Your task to perform on an android device: What's the news in Trinidad and Tobago? Image 0: 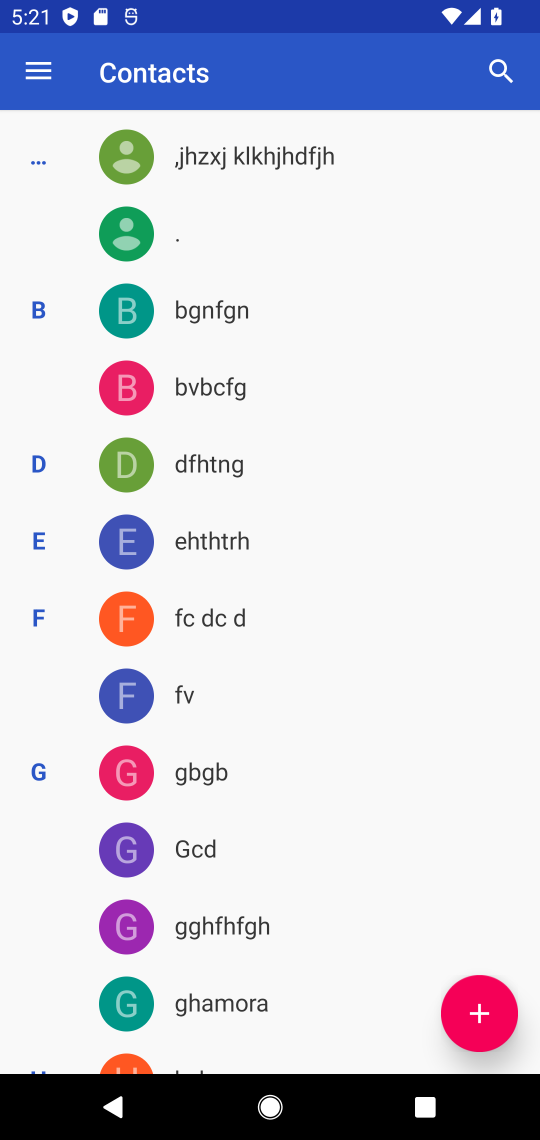
Step 0: press home button
Your task to perform on an android device: What's the news in Trinidad and Tobago? Image 1: 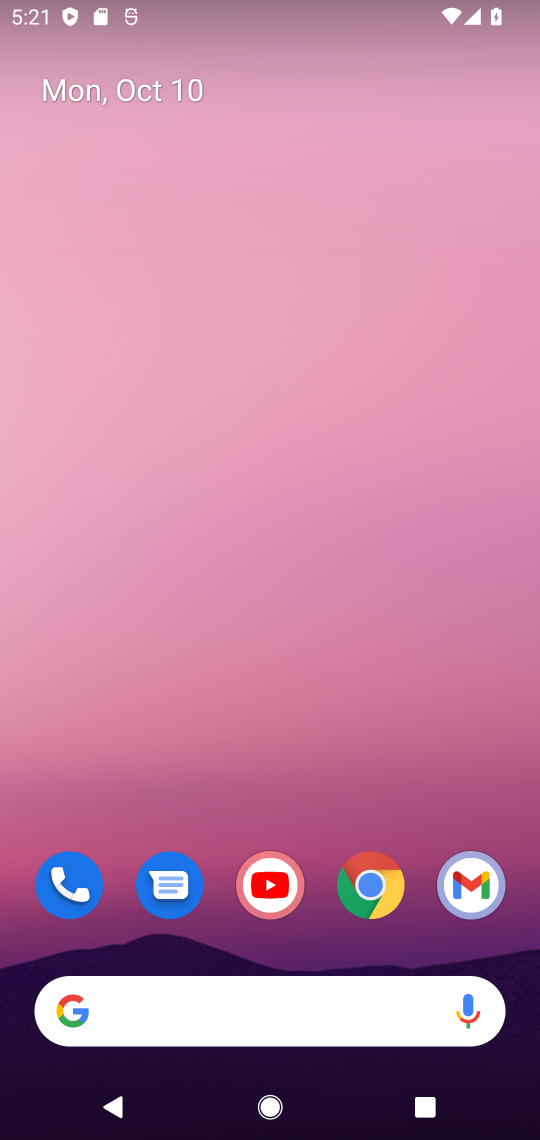
Step 1: click (353, 895)
Your task to perform on an android device: What's the news in Trinidad and Tobago? Image 2: 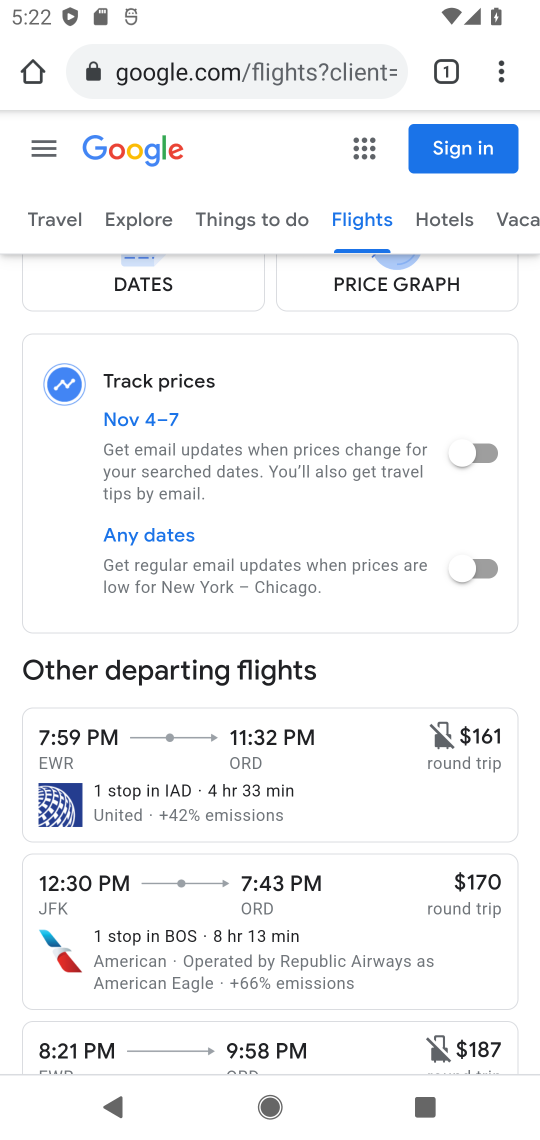
Step 2: click (307, 76)
Your task to perform on an android device: What's the news in Trinidad and Tobago? Image 3: 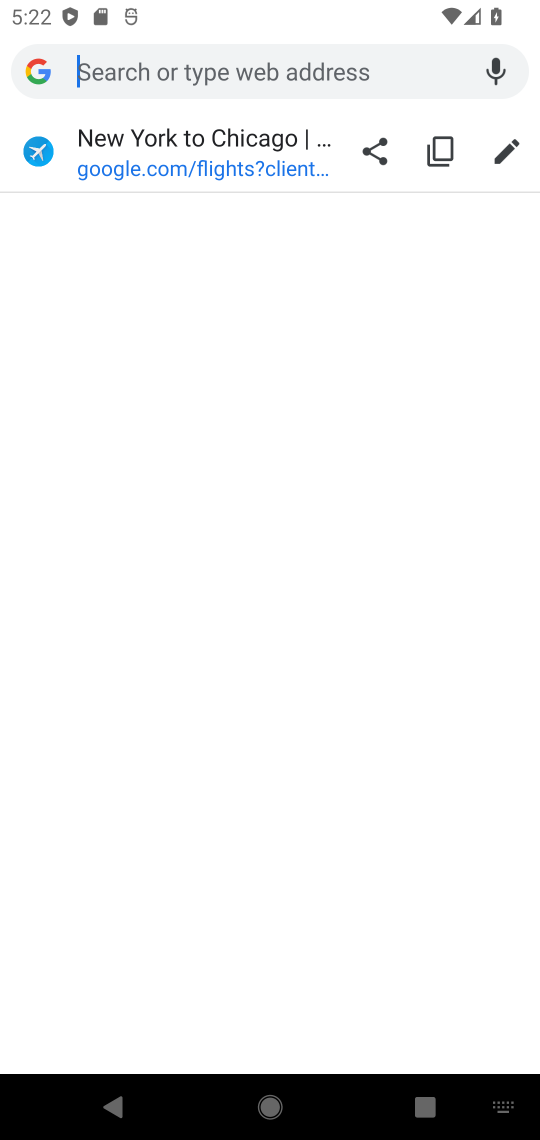
Step 3: type "Trinidad and Tobago"
Your task to perform on an android device: What's the news in Trinidad and Tobago? Image 4: 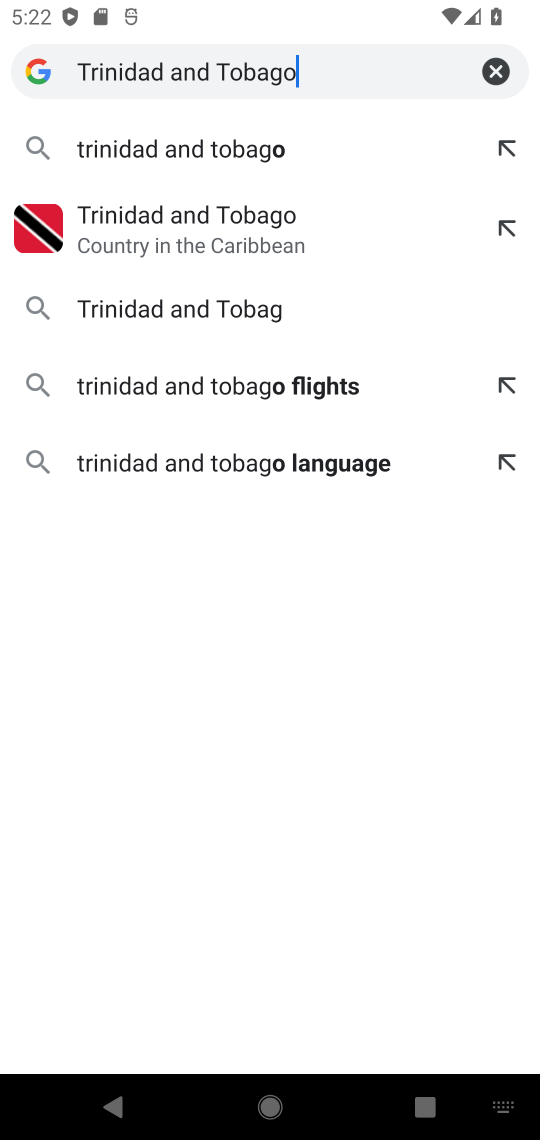
Step 4: type ""
Your task to perform on an android device: What's the news in Trinidad and Tobago? Image 5: 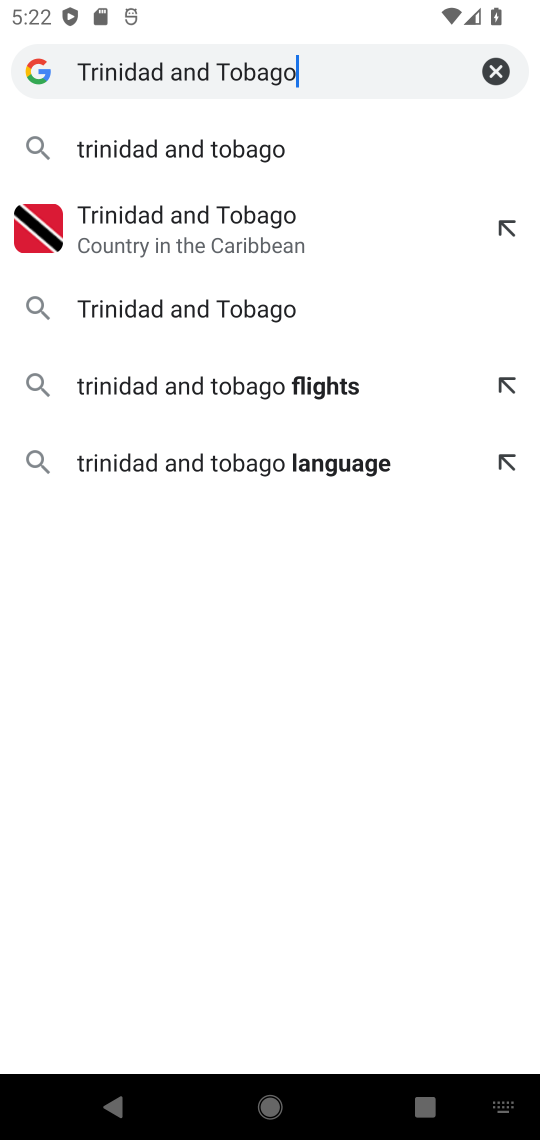
Step 5: click (141, 149)
Your task to perform on an android device: What's the news in Trinidad and Tobago? Image 6: 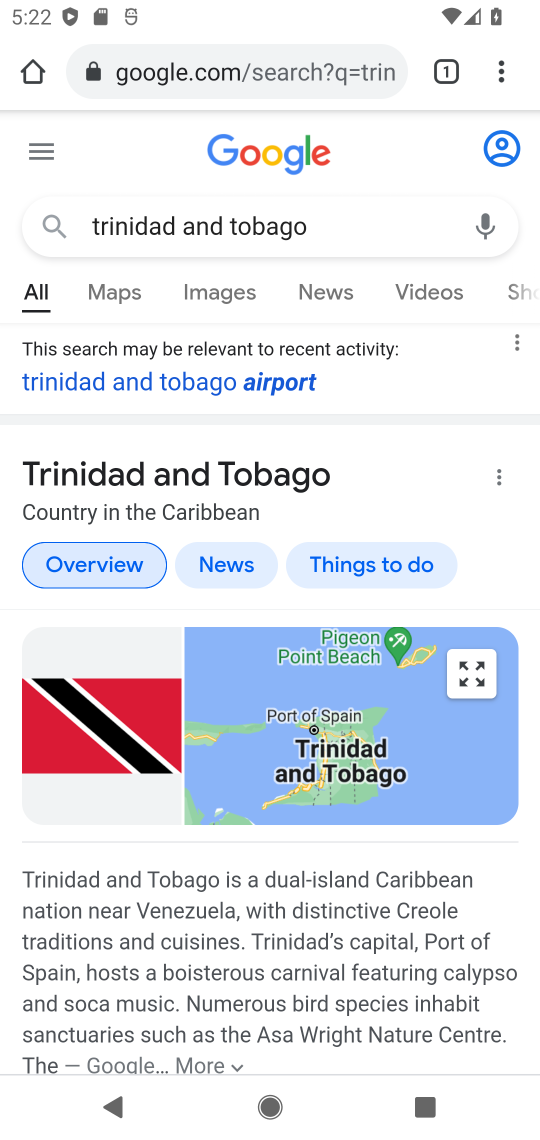
Step 6: drag from (369, 898) to (295, 200)
Your task to perform on an android device: What's the news in Trinidad and Tobago? Image 7: 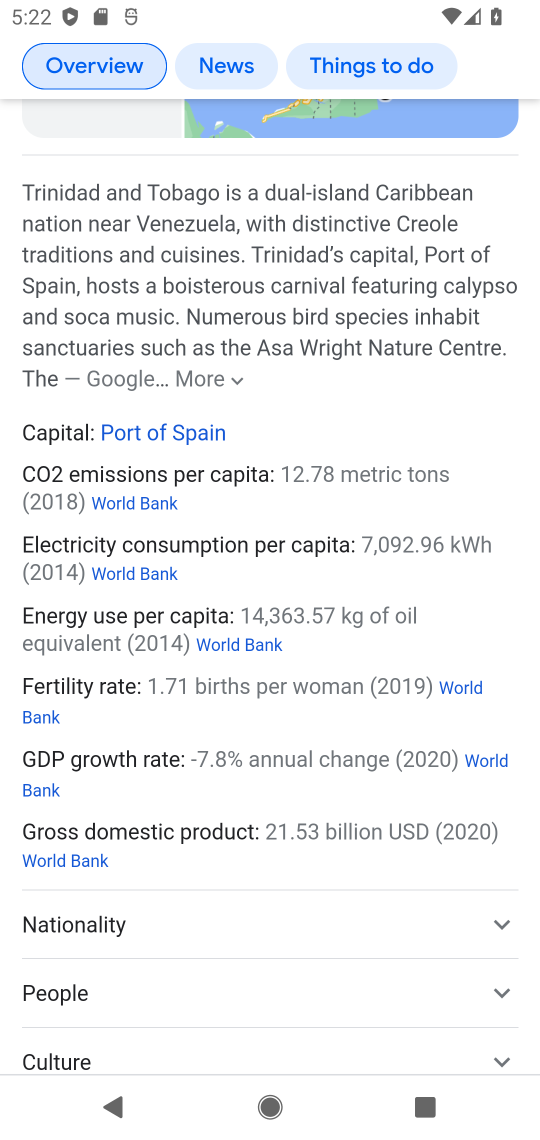
Step 7: drag from (382, 845) to (392, 288)
Your task to perform on an android device: What's the news in Trinidad and Tobago? Image 8: 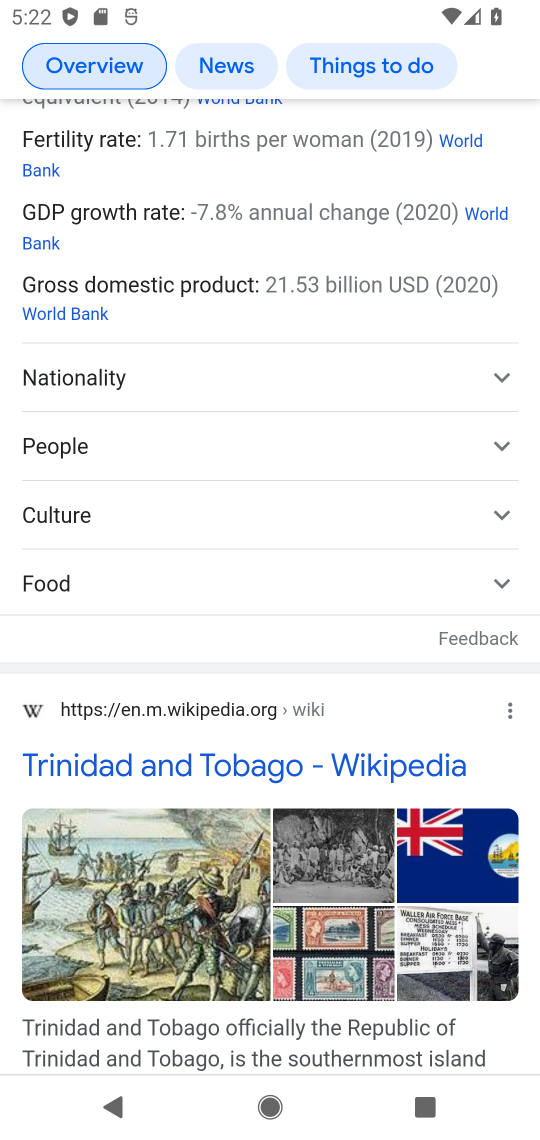
Step 8: drag from (278, 477) to (267, 551)
Your task to perform on an android device: What's the news in Trinidad and Tobago? Image 9: 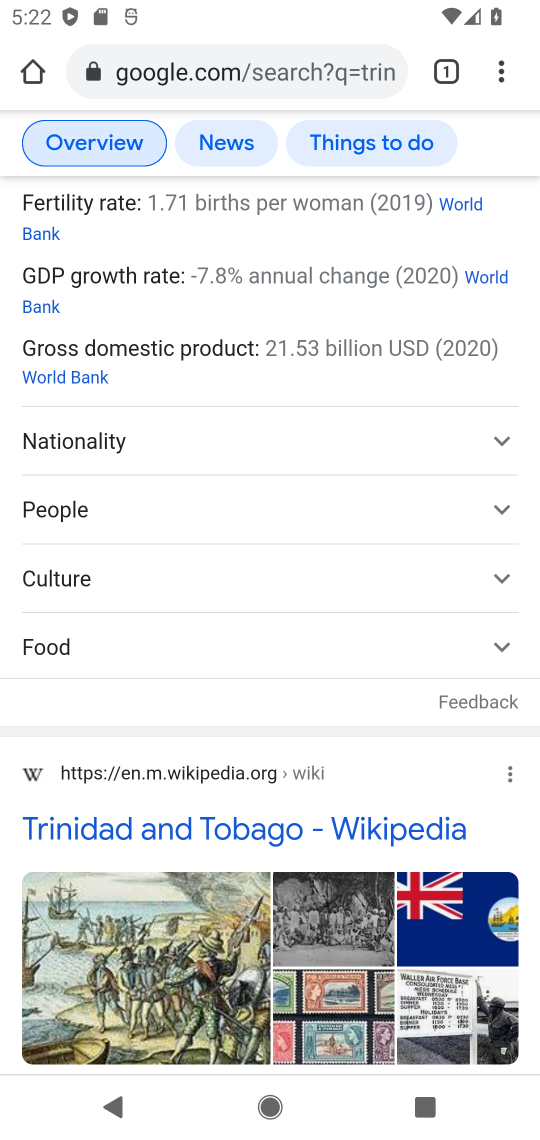
Step 9: click (216, 134)
Your task to perform on an android device: What's the news in Trinidad and Tobago? Image 10: 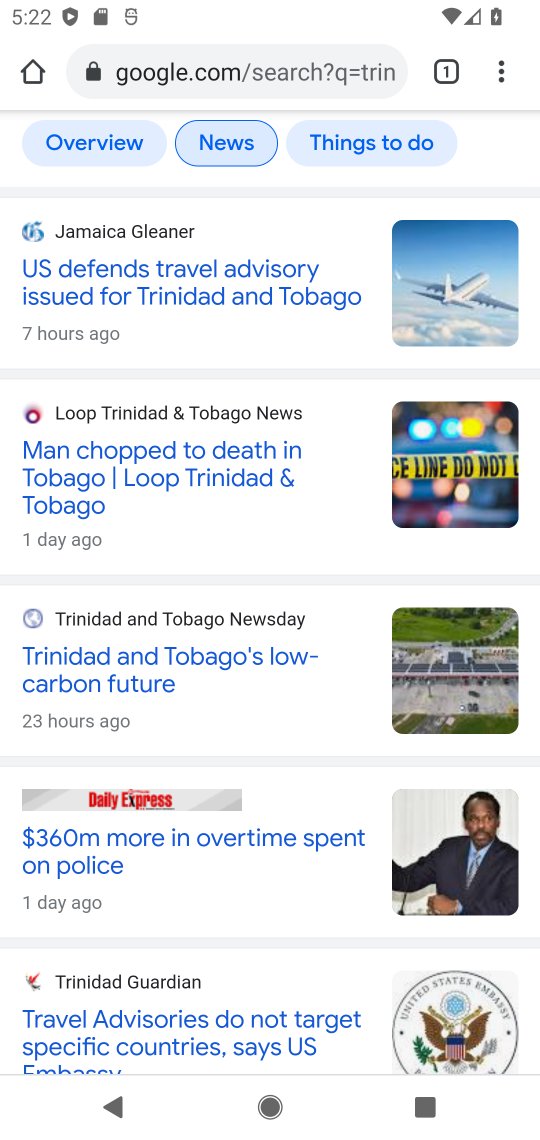
Step 10: task complete